Your task to perform on an android device: Open Yahoo.com Image 0: 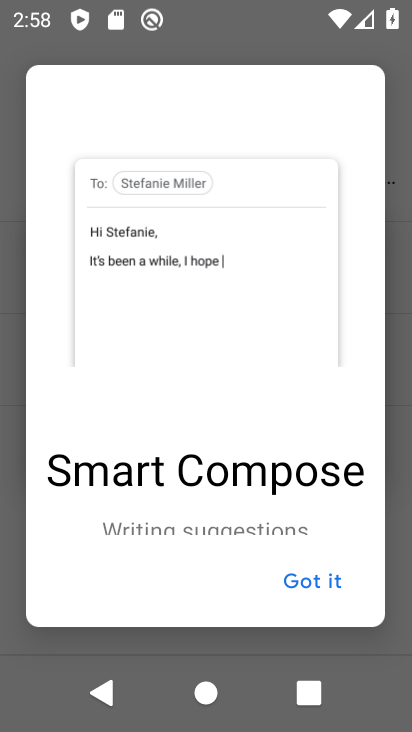
Step 0: press home button
Your task to perform on an android device: Open Yahoo.com Image 1: 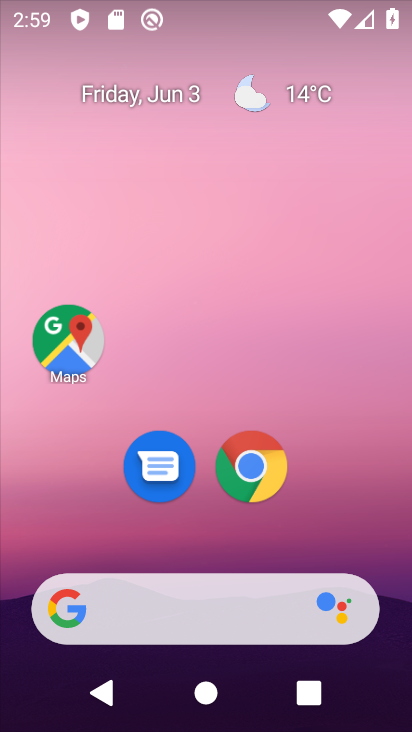
Step 1: click (244, 454)
Your task to perform on an android device: Open Yahoo.com Image 2: 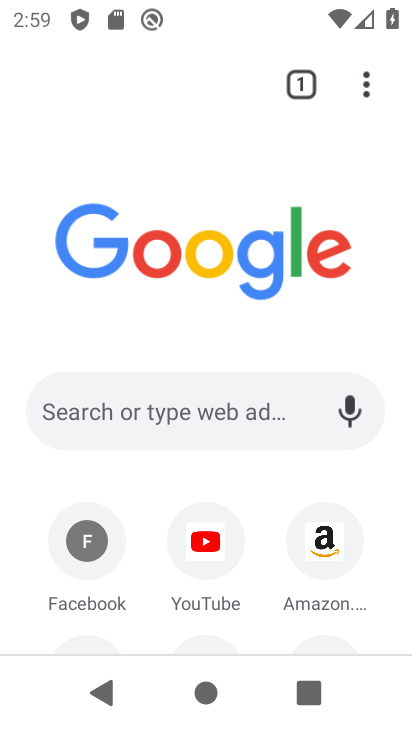
Step 2: drag from (264, 582) to (300, 222)
Your task to perform on an android device: Open Yahoo.com Image 3: 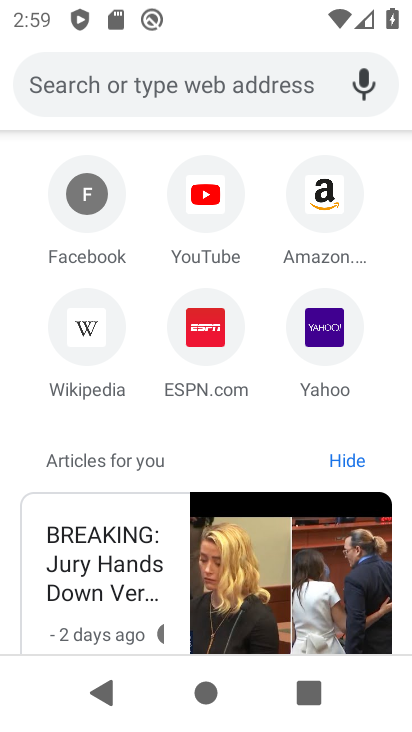
Step 3: click (314, 319)
Your task to perform on an android device: Open Yahoo.com Image 4: 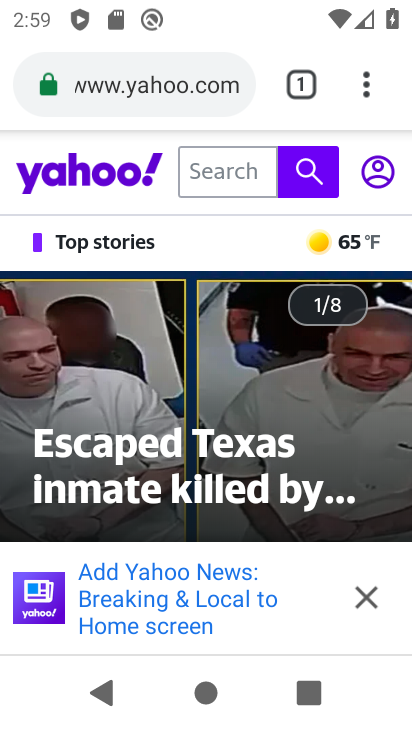
Step 4: click (368, 598)
Your task to perform on an android device: Open Yahoo.com Image 5: 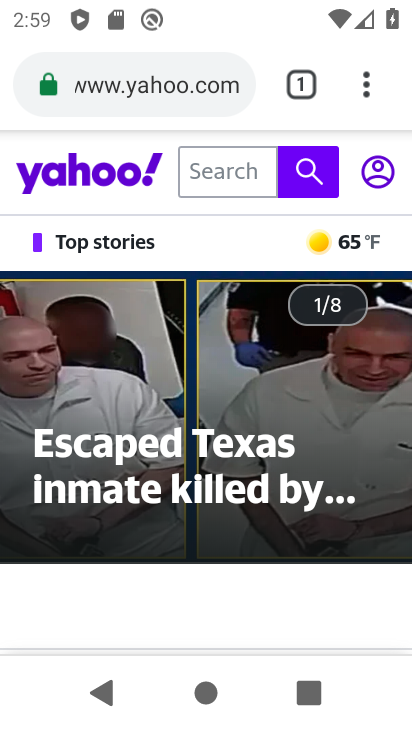
Step 5: task complete